Your task to perform on an android device: Go to Maps Image 0: 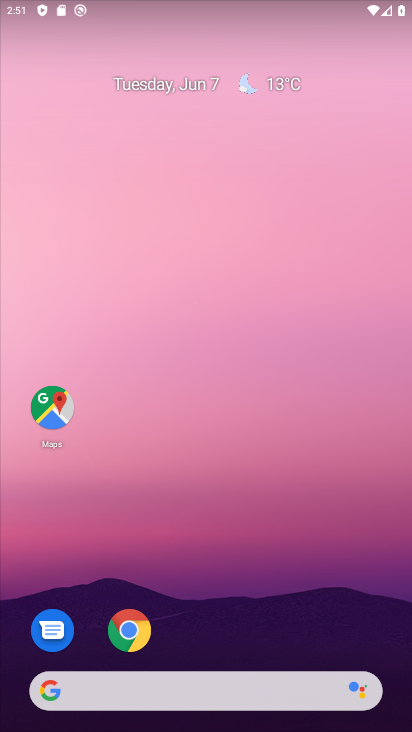
Step 0: click (69, 427)
Your task to perform on an android device: Go to Maps Image 1: 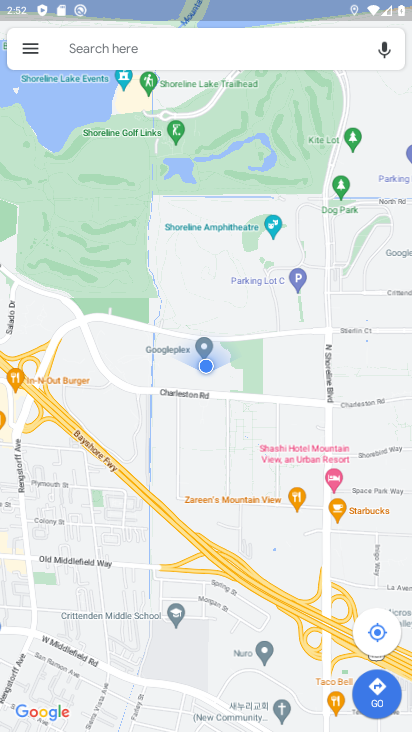
Step 1: task complete